Your task to perform on an android device: Open Wikipedia Image 0: 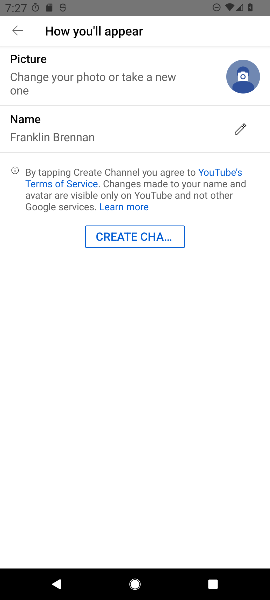
Step 0: press home button
Your task to perform on an android device: Open Wikipedia Image 1: 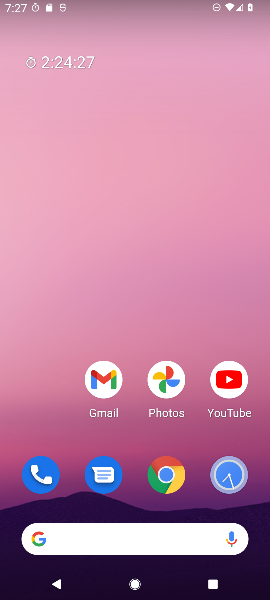
Step 1: drag from (43, 416) to (47, 207)
Your task to perform on an android device: Open Wikipedia Image 2: 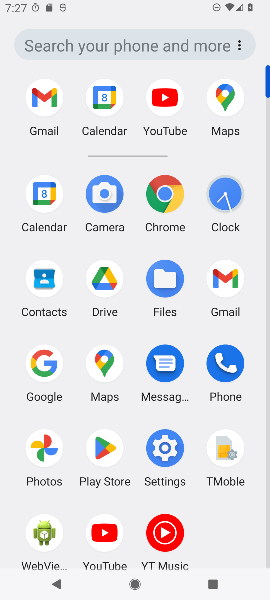
Step 2: click (162, 193)
Your task to perform on an android device: Open Wikipedia Image 3: 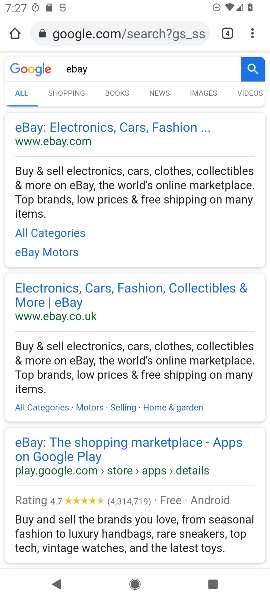
Step 3: click (147, 31)
Your task to perform on an android device: Open Wikipedia Image 4: 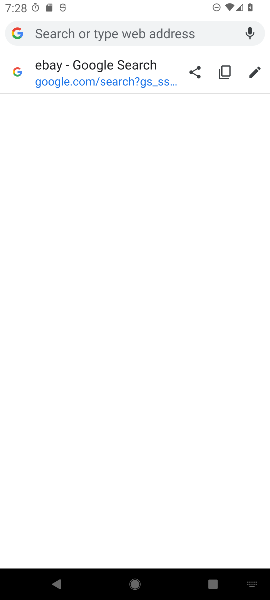
Step 4: type "wikipedia"
Your task to perform on an android device: Open Wikipedia Image 5: 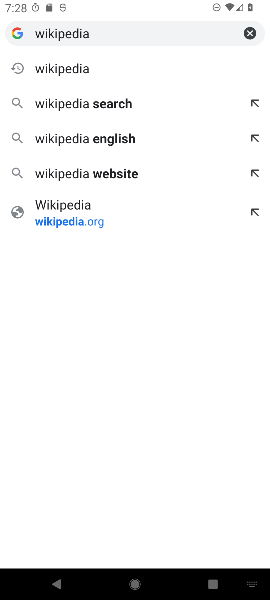
Step 5: click (103, 64)
Your task to perform on an android device: Open Wikipedia Image 6: 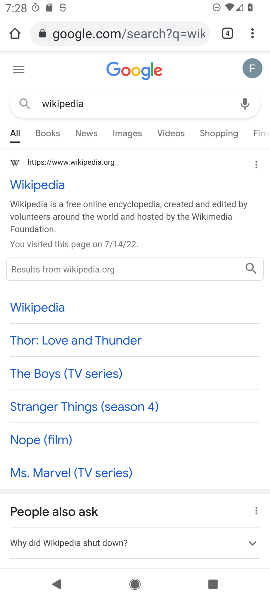
Step 6: task complete